Your task to perform on an android device: Is it going to rain tomorrow? Image 0: 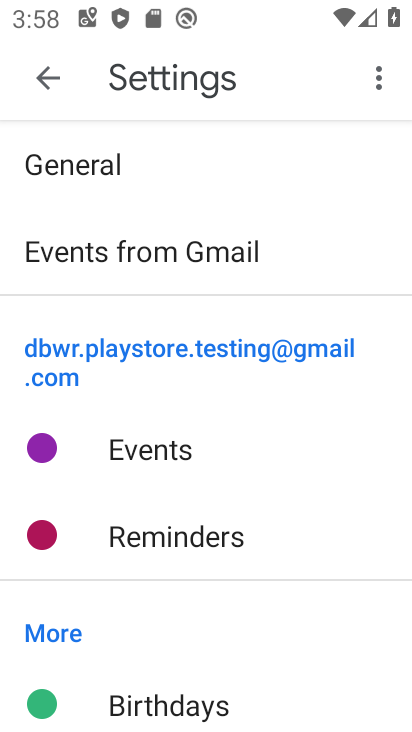
Step 0: press home button
Your task to perform on an android device: Is it going to rain tomorrow? Image 1: 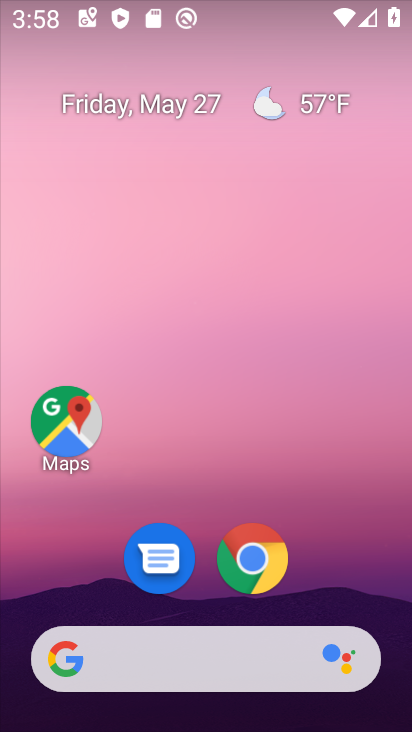
Step 1: drag from (376, 566) to (292, 13)
Your task to perform on an android device: Is it going to rain tomorrow? Image 2: 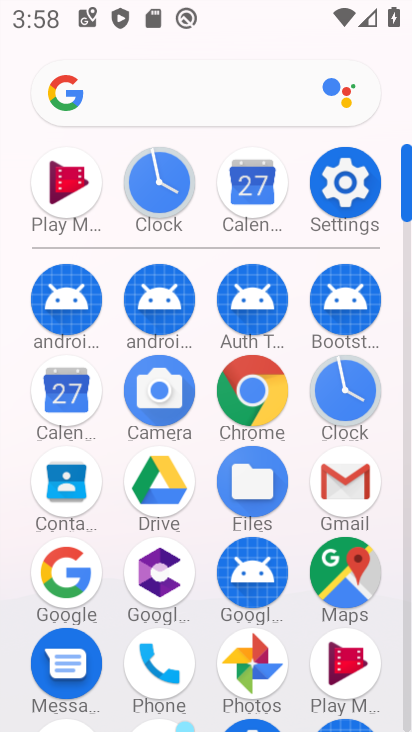
Step 2: click (213, 101)
Your task to perform on an android device: Is it going to rain tomorrow? Image 3: 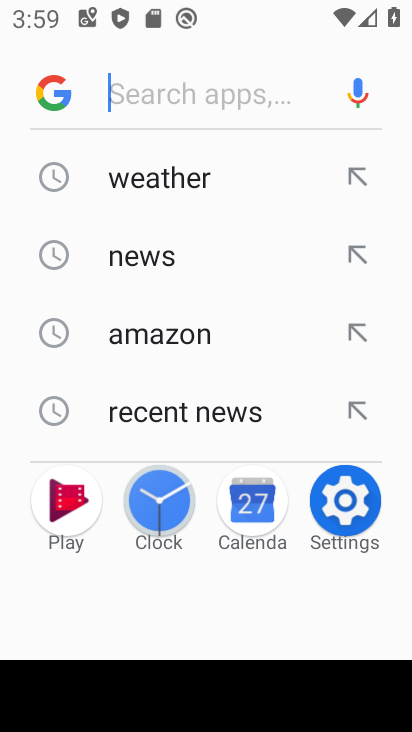
Step 3: click (175, 210)
Your task to perform on an android device: Is it going to rain tomorrow? Image 4: 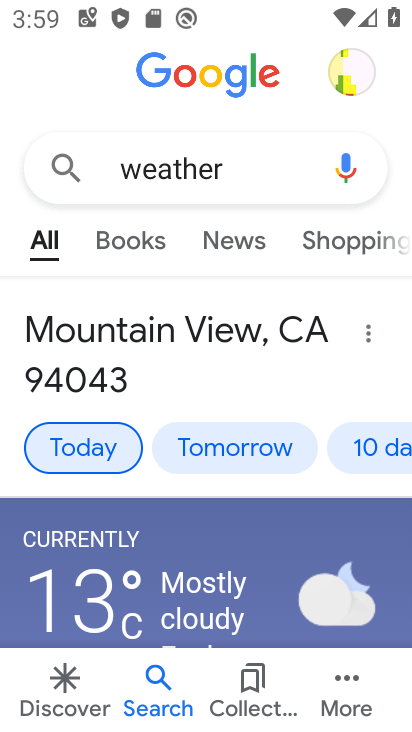
Step 4: task complete